Your task to perform on an android device: Show me productivity apps on the Play Store Image 0: 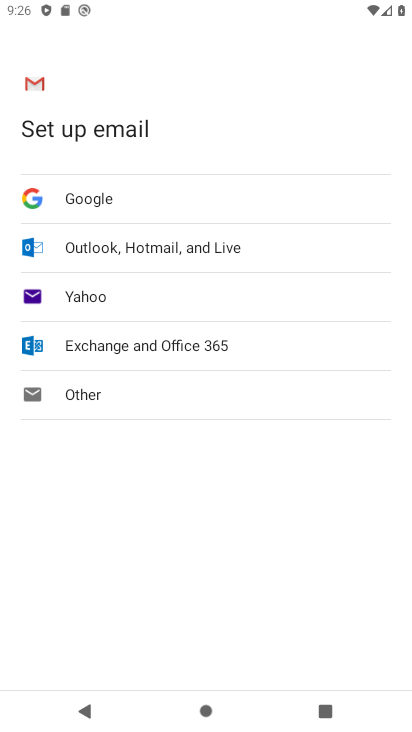
Step 0: press home button
Your task to perform on an android device: Show me productivity apps on the Play Store Image 1: 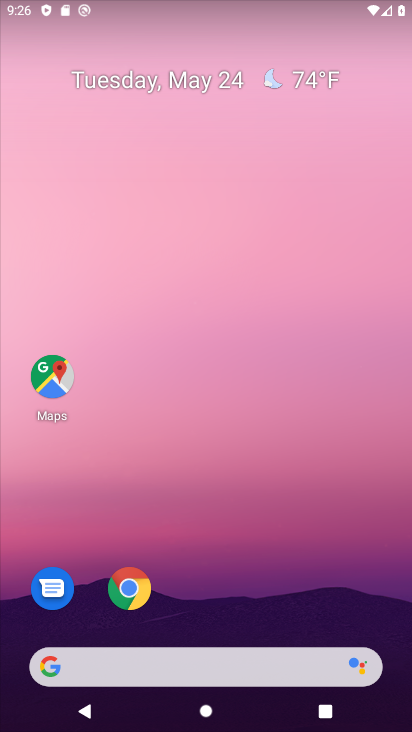
Step 1: drag from (222, 641) to (222, 224)
Your task to perform on an android device: Show me productivity apps on the Play Store Image 2: 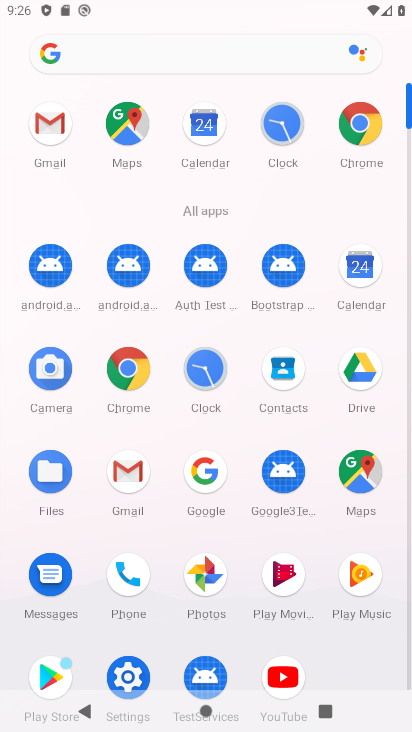
Step 2: click (51, 661)
Your task to perform on an android device: Show me productivity apps on the Play Store Image 3: 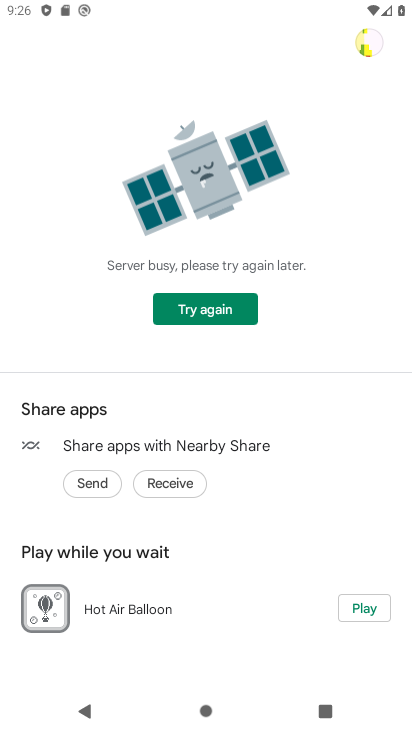
Step 3: click (205, 314)
Your task to perform on an android device: Show me productivity apps on the Play Store Image 4: 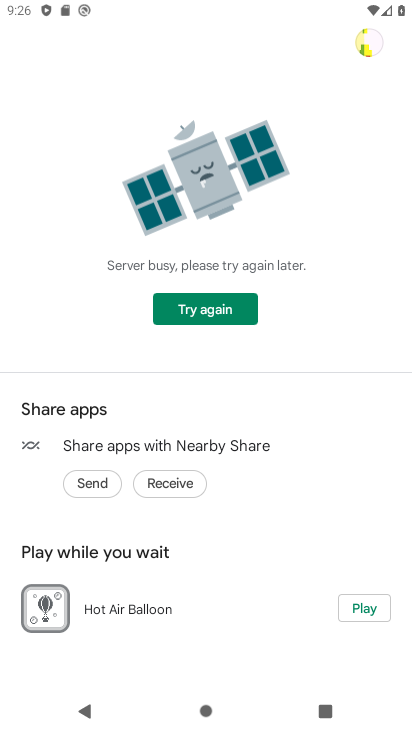
Step 4: click (376, 599)
Your task to perform on an android device: Show me productivity apps on the Play Store Image 5: 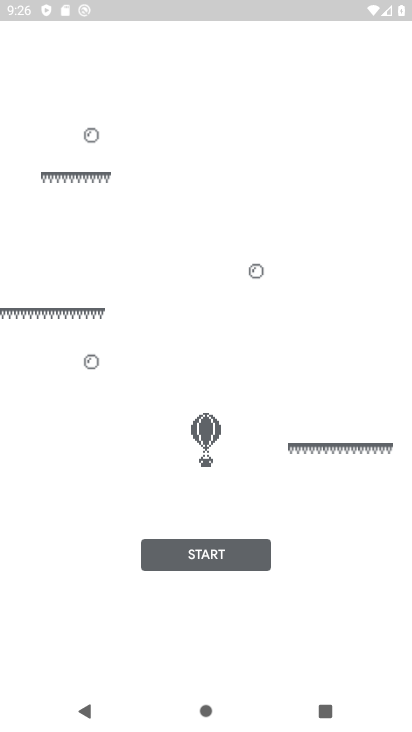
Step 5: click (211, 557)
Your task to perform on an android device: Show me productivity apps on the Play Store Image 6: 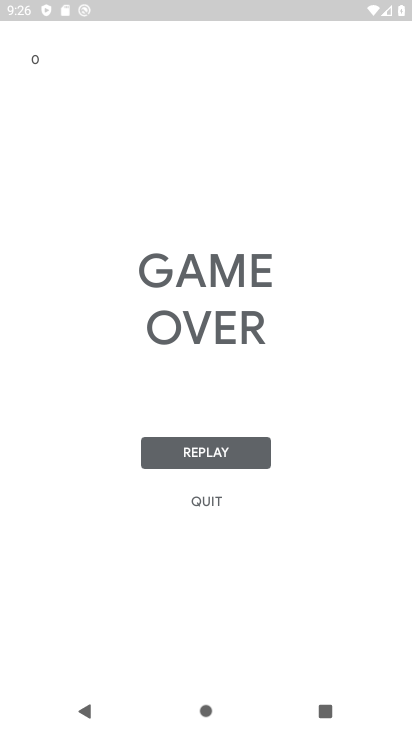
Step 6: click (200, 465)
Your task to perform on an android device: Show me productivity apps on the Play Store Image 7: 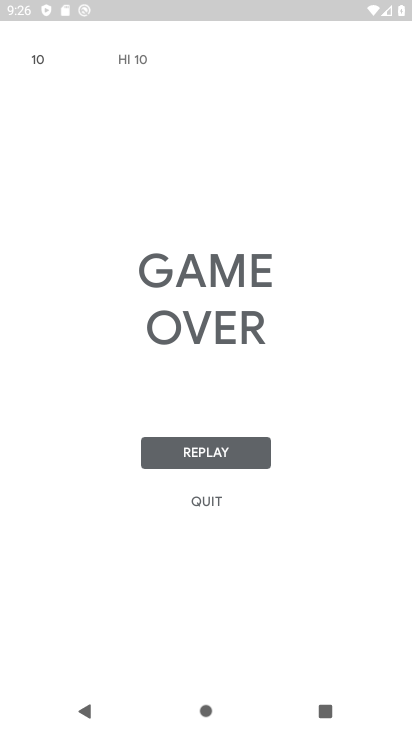
Step 7: click (200, 465)
Your task to perform on an android device: Show me productivity apps on the Play Store Image 8: 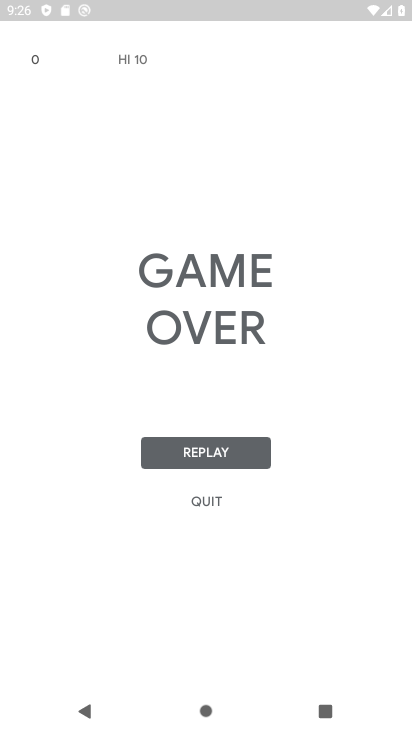
Step 8: click (173, 431)
Your task to perform on an android device: Show me productivity apps on the Play Store Image 9: 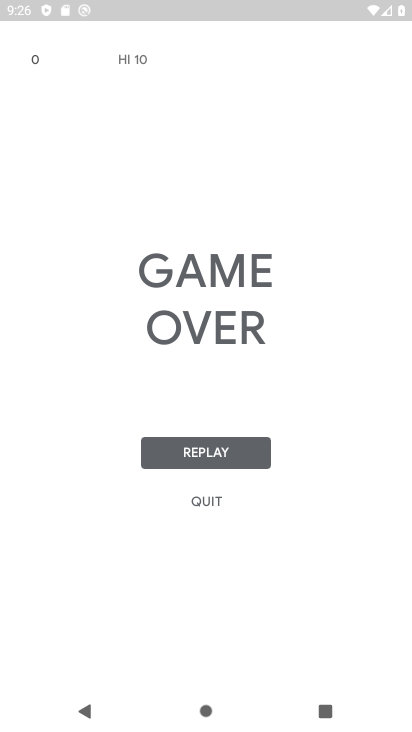
Step 9: click (207, 438)
Your task to perform on an android device: Show me productivity apps on the Play Store Image 10: 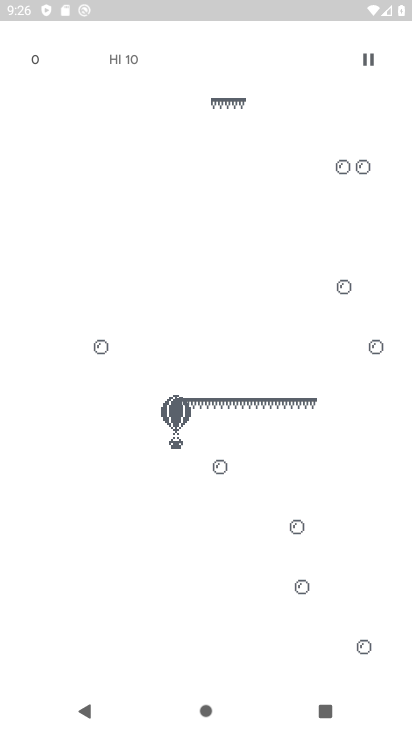
Step 10: click (138, 308)
Your task to perform on an android device: Show me productivity apps on the Play Store Image 11: 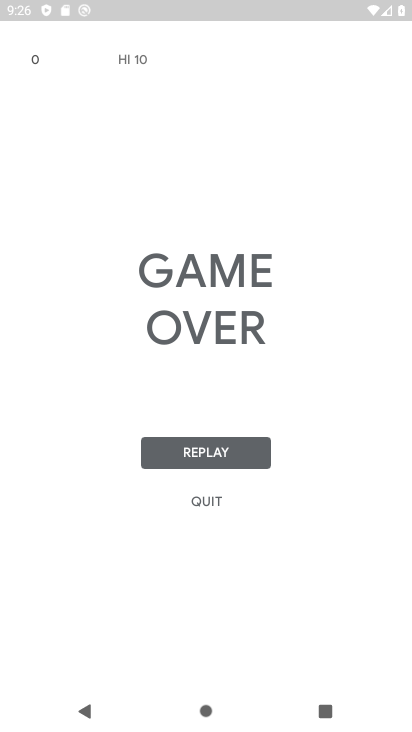
Step 11: click (230, 457)
Your task to perform on an android device: Show me productivity apps on the Play Store Image 12: 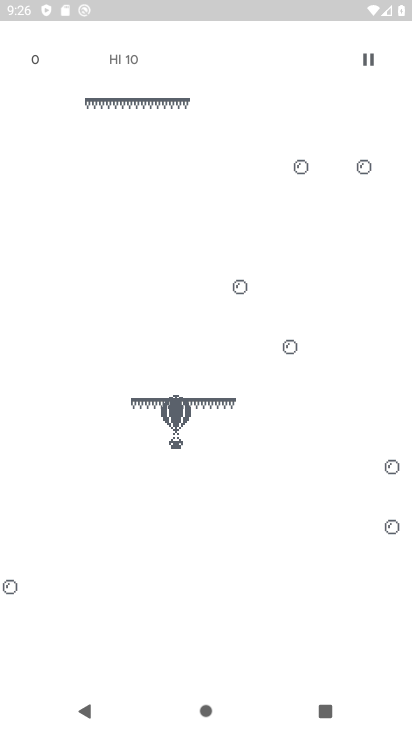
Step 12: click (200, 344)
Your task to perform on an android device: Show me productivity apps on the Play Store Image 13: 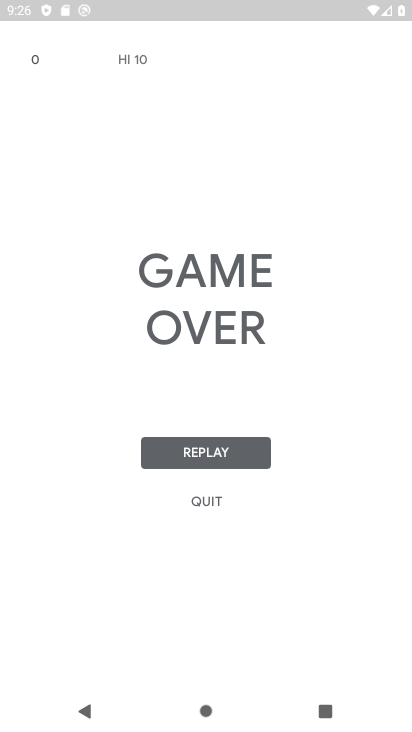
Step 13: click (188, 461)
Your task to perform on an android device: Show me productivity apps on the Play Store Image 14: 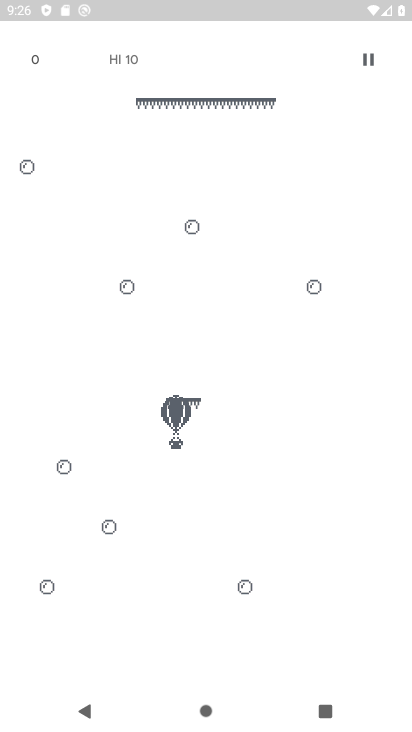
Step 14: click (64, 357)
Your task to perform on an android device: Show me productivity apps on the Play Store Image 15: 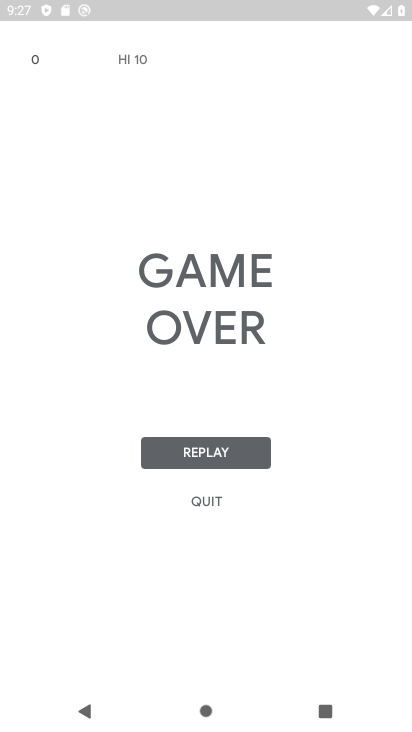
Step 15: click (203, 455)
Your task to perform on an android device: Show me productivity apps on the Play Store Image 16: 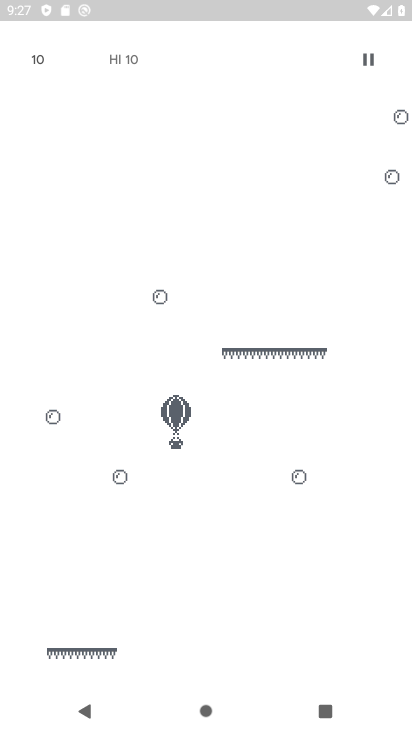
Step 16: task complete